Your task to perform on an android device: turn on priority inbox in the gmail app Image 0: 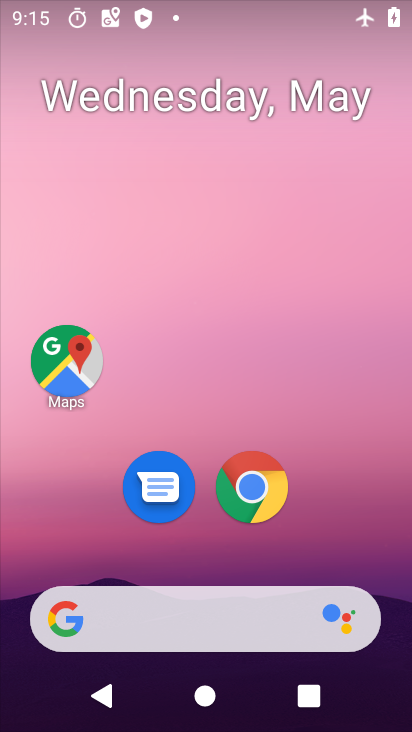
Step 0: drag from (203, 572) to (220, 232)
Your task to perform on an android device: turn on priority inbox in the gmail app Image 1: 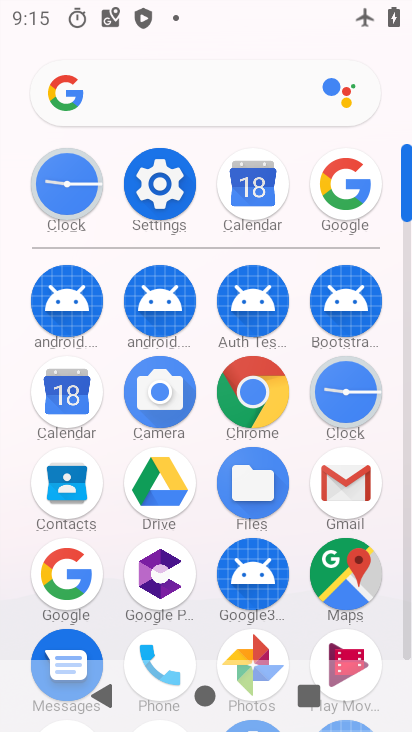
Step 1: click (337, 455)
Your task to perform on an android device: turn on priority inbox in the gmail app Image 2: 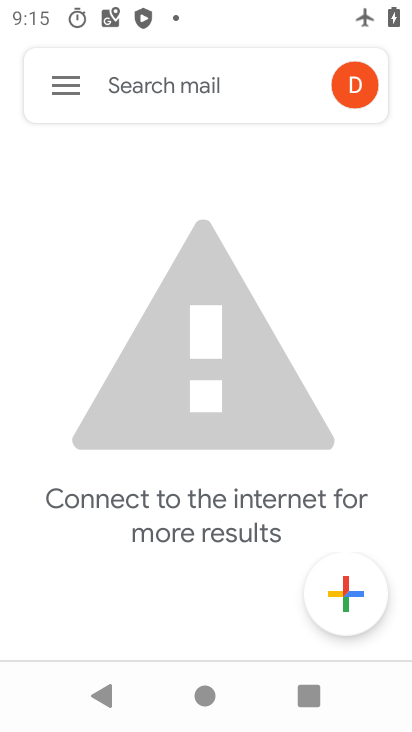
Step 2: click (80, 90)
Your task to perform on an android device: turn on priority inbox in the gmail app Image 3: 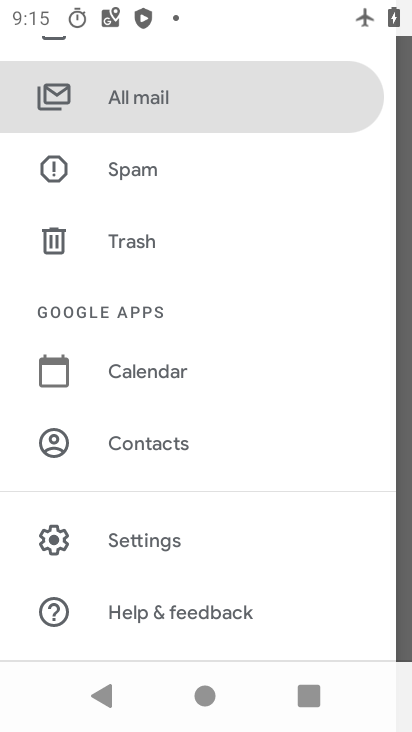
Step 3: click (173, 554)
Your task to perform on an android device: turn on priority inbox in the gmail app Image 4: 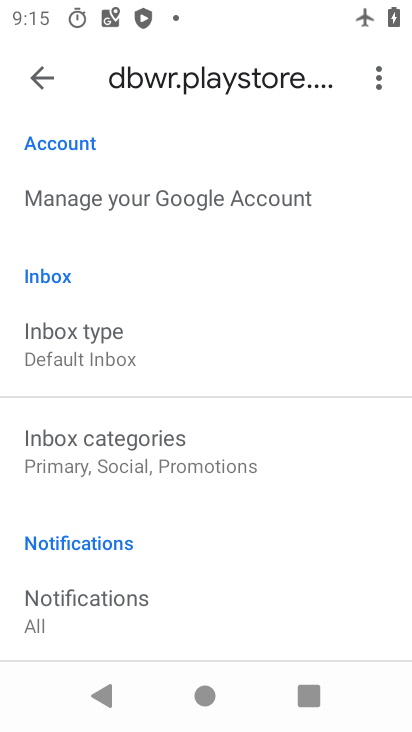
Step 4: click (140, 359)
Your task to perform on an android device: turn on priority inbox in the gmail app Image 5: 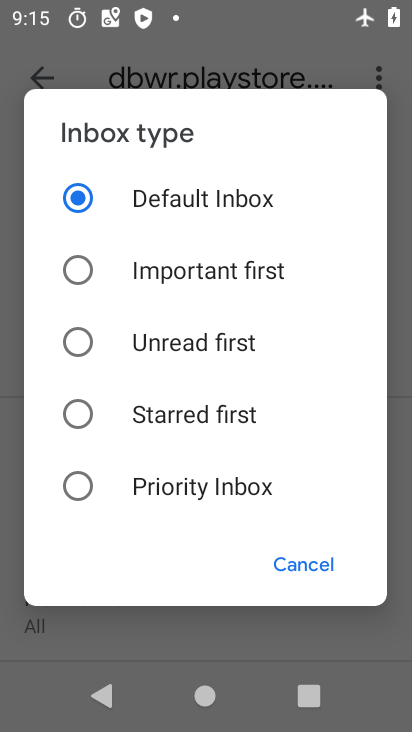
Step 5: click (78, 483)
Your task to perform on an android device: turn on priority inbox in the gmail app Image 6: 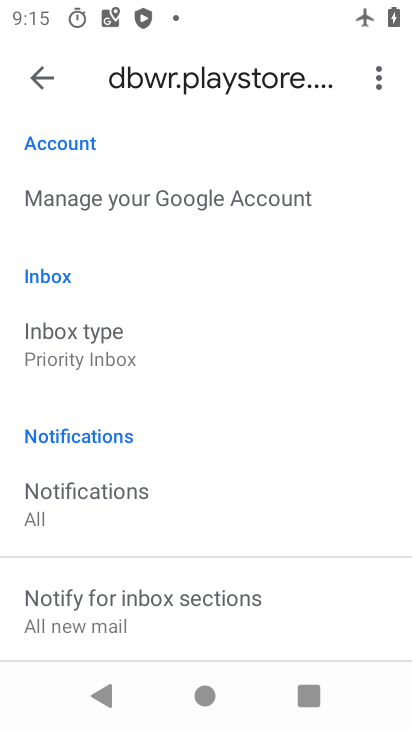
Step 6: task complete